Your task to perform on an android device: turn off smart reply in the gmail app Image 0: 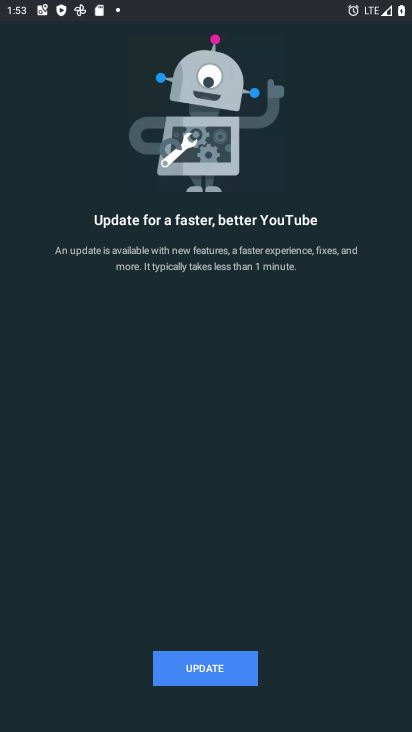
Step 0: press home button
Your task to perform on an android device: turn off smart reply in the gmail app Image 1: 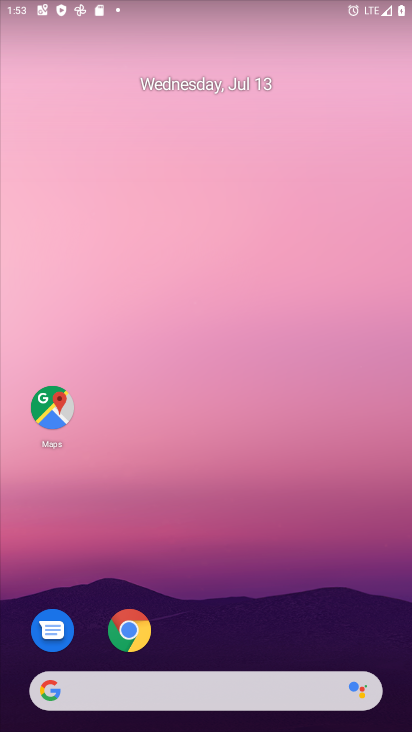
Step 1: drag from (399, 670) to (9, 670)
Your task to perform on an android device: turn off smart reply in the gmail app Image 2: 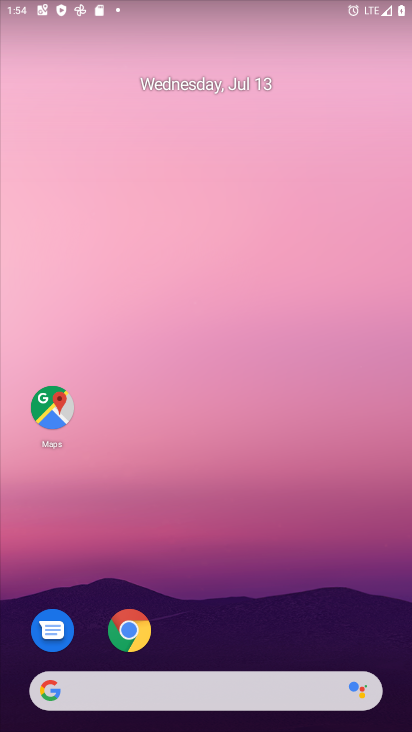
Step 2: drag from (392, 689) to (298, 1)
Your task to perform on an android device: turn off smart reply in the gmail app Image 3: 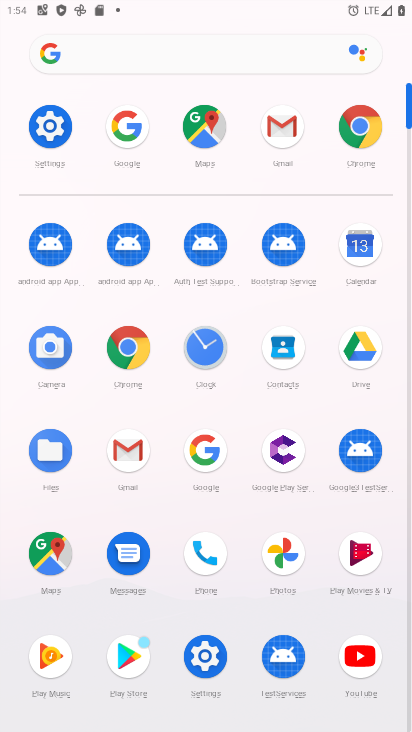
Step 3: click (134, 454)
Your task to perform on an android device: turn off smart reply in the gmail app Image 4: 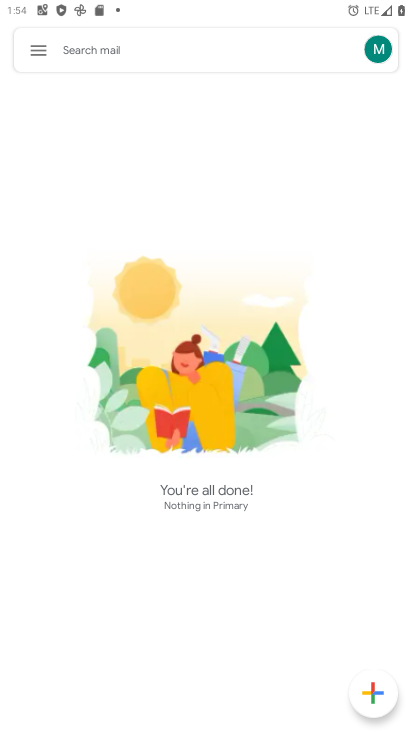
Step 4: click (37, 47)
Your task to perform on an android device: turn off smart reply in the gmail app Image 5: 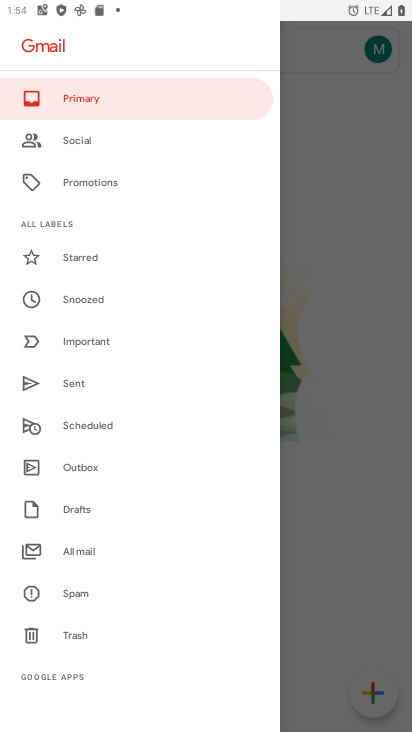
Step 5: drag from (13, 683) to (149, 81)
Your task to perform on an android device: turn off smart reply in the gmail app Image 6: 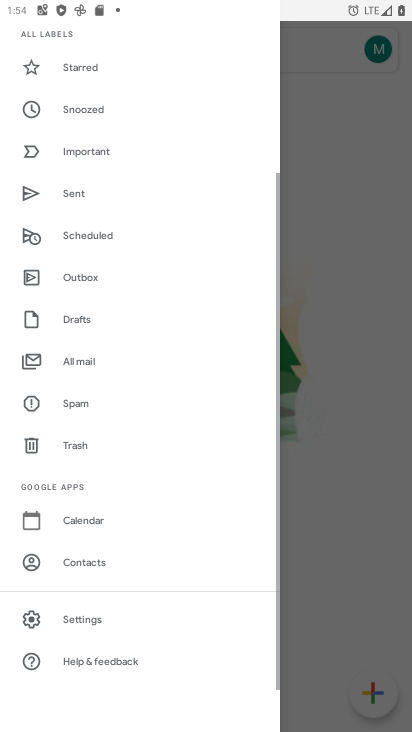
Step 6: click (101, 619)
Your task to perform on an android device: turn off smart reply in the gmail app Image 7: 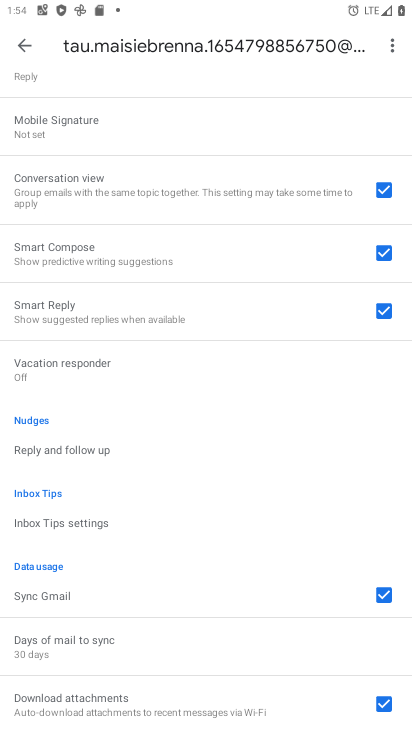
Step 7: click (304, 312)
Your task to perform on an android device: turn off smart reply in the gmail app Image 8: 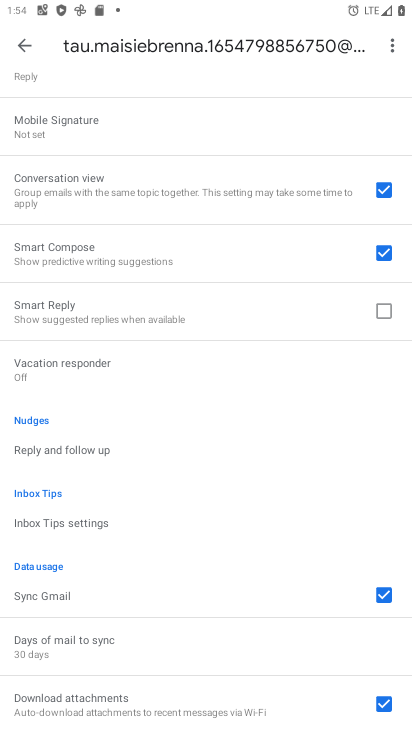
Step 8: task complete